Your task to perform on an android device: Set the phone to "Do not disturb". Image 0: 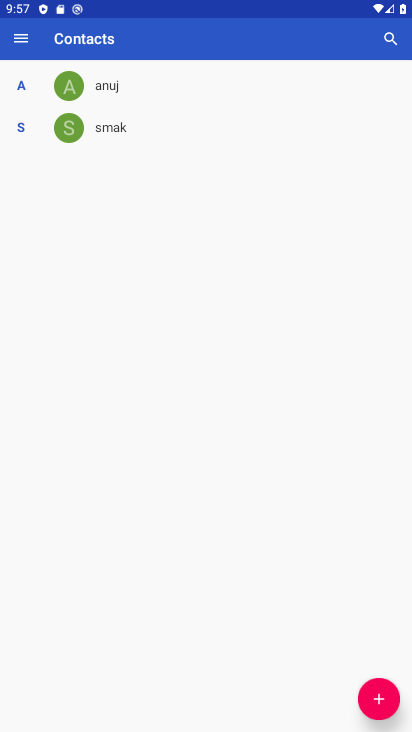
Step 0: press home button
Your task to perform on an android device: Set the phone to "Do not disturb". Image 1: 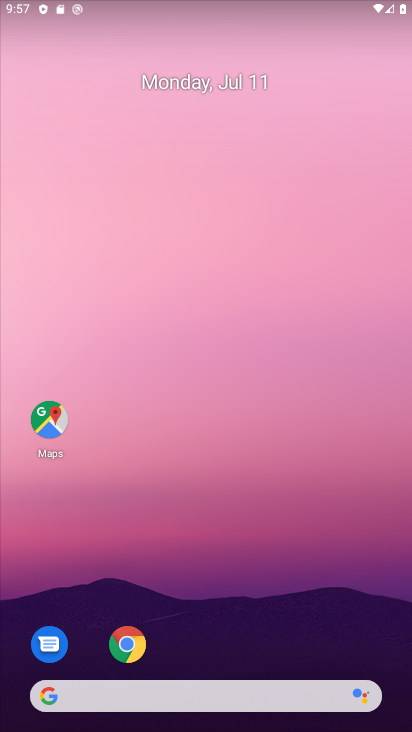
Step 1: drag from (107, 687) to (146, 388)
Your task to perform on an android device: Set the phone to "Do not disturb". Image 2: 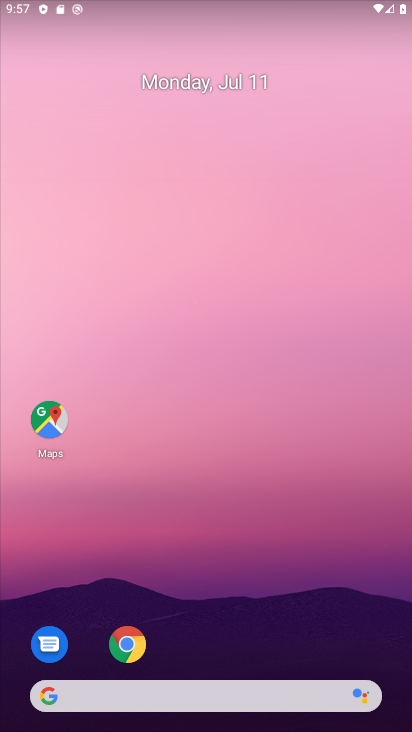
Step 2: drag from (240, 675) to (241, 357)
Your task to perform on an android device: Set the phone to "Do not disturb". Image 3: 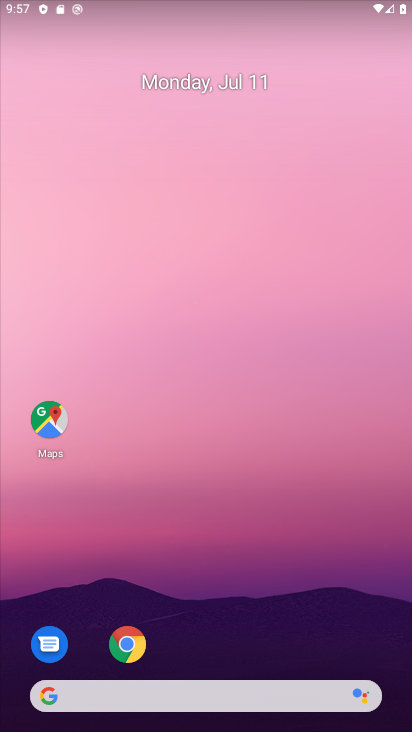
Step 3: drag from (188, 686) to (188, 351)
Your task to perform on an android device: Set the phone to "Do not disturb". Image 4: 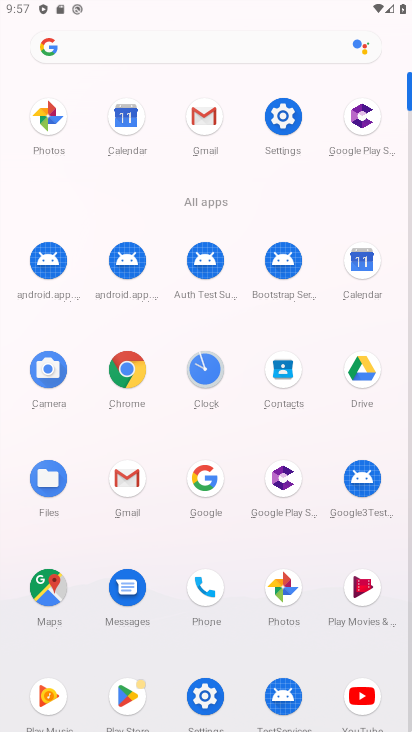
Step 4: click (275, 126)
Your task to perform on an android device: Set the phone to "Do not disturb". Image 5: 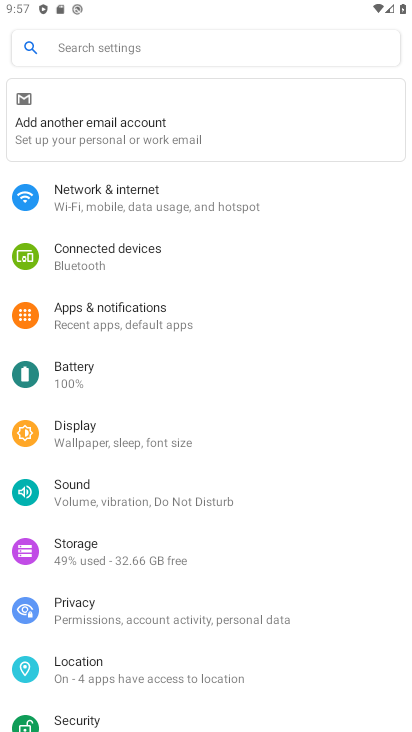
Step 5: click (141, 494)
Your task to perform on an android device: Set the phone to "Do not disturb". Image 6: 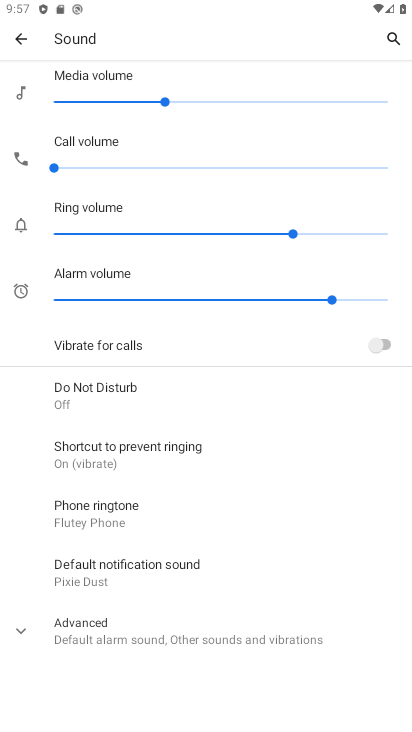
Step 6: click (78, 628)
Your task to perform on an android device: Set the phone to "Do not disturb". Image 7: 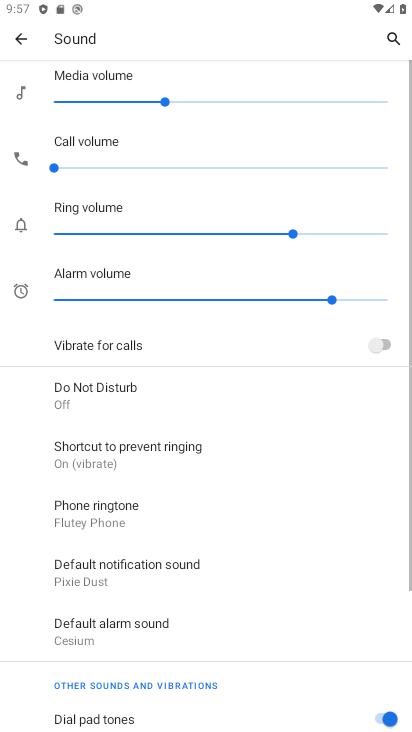
Step 7: click (85, 390)
Your task to perform on an android device: Set the phone to "Do not disturb". Image 8: 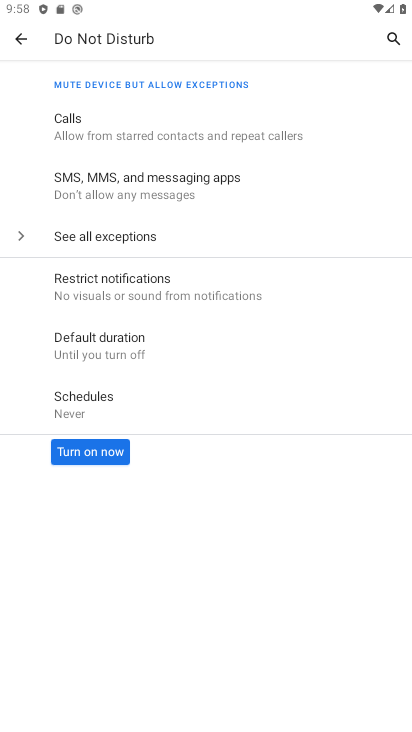
Step 8: click (96, 455)
Your task to perform on an android device: Set the phone to "Do not disturb". Image 9: 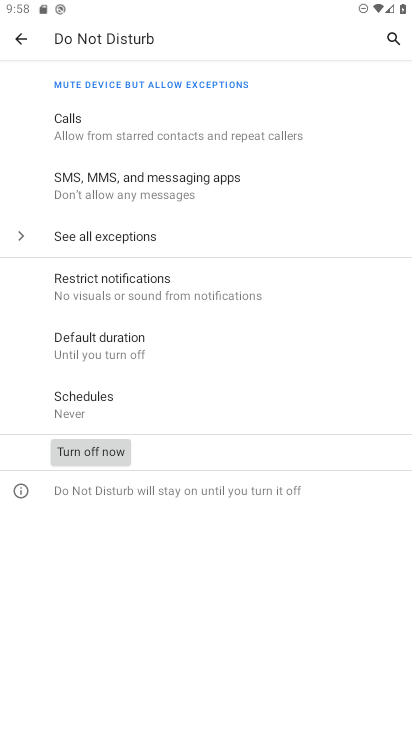
Step 9: task complete